Your task to perform on an android device: What is the news today? Image 0: 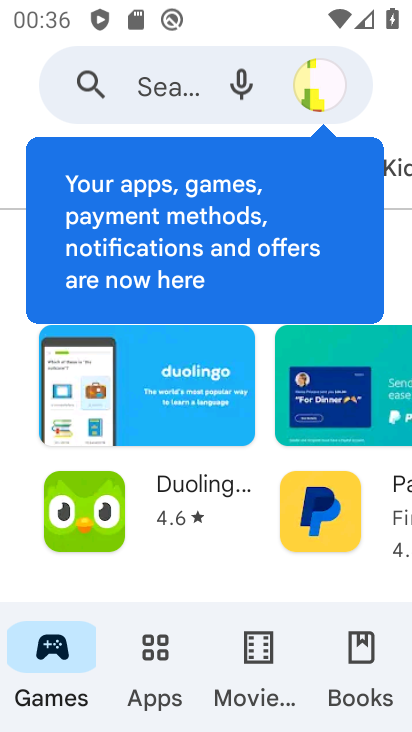
Step 0: press home button
Your task to perform on an android device: What is the news today? Image 1: 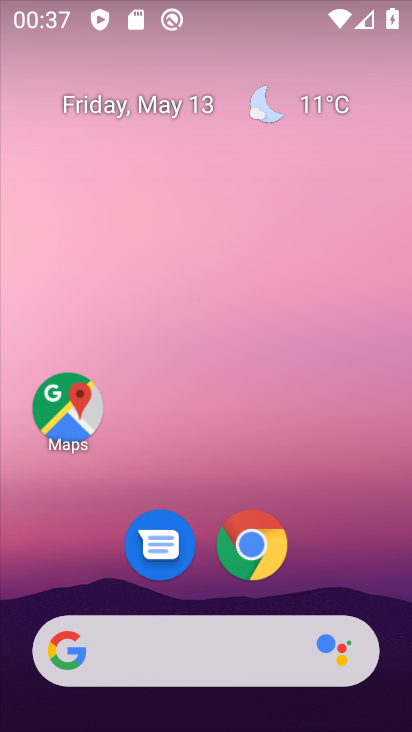
Step 1: click (263, 566)
Your task to perform on an android device: What is the news today? Image 2: 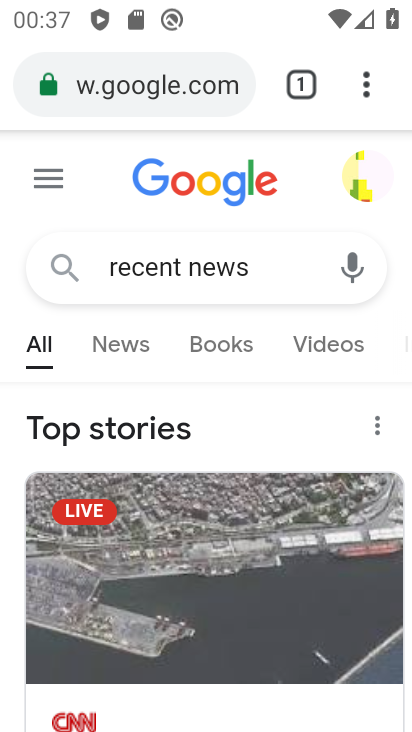
Step 2: click (140, 82)
Your task to perform on an android device: What is the news today? Image 3: 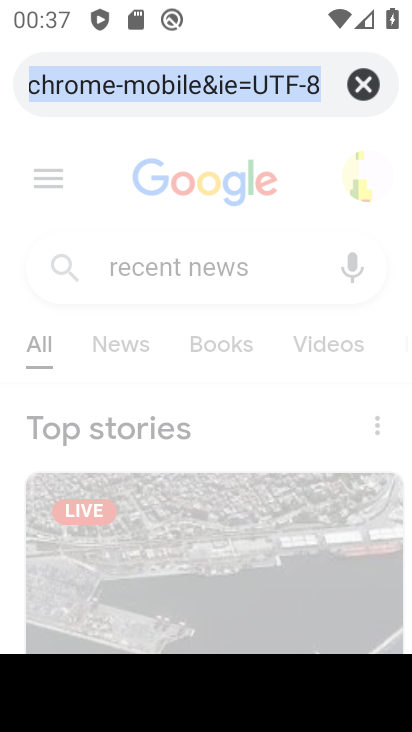
Step 3: type "what is the news today"
Your task to perform on an android device: What is the news today? Image 4: 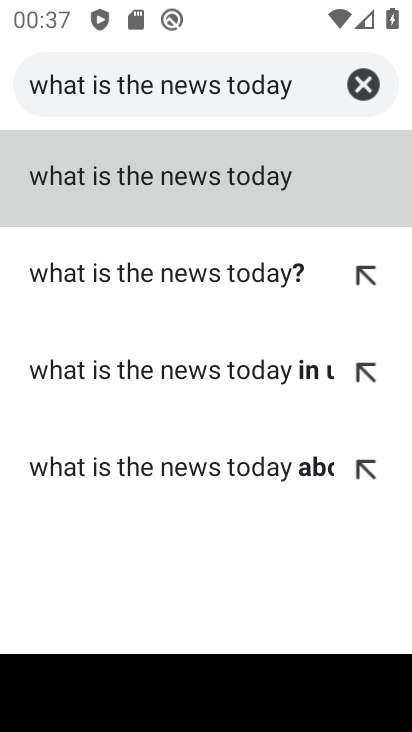
Step 4: click (203, 199)
Your task to perform on an android device: What is the news today? Image 5: 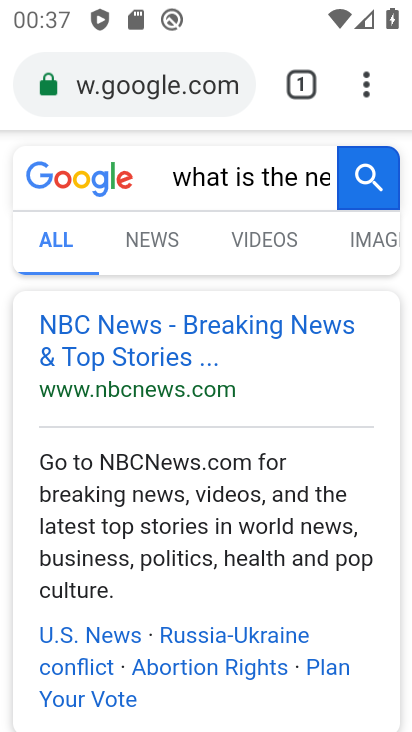
Step 5: click (163, 332)
Your task to perform on an android device: What is the news today? Image 6: 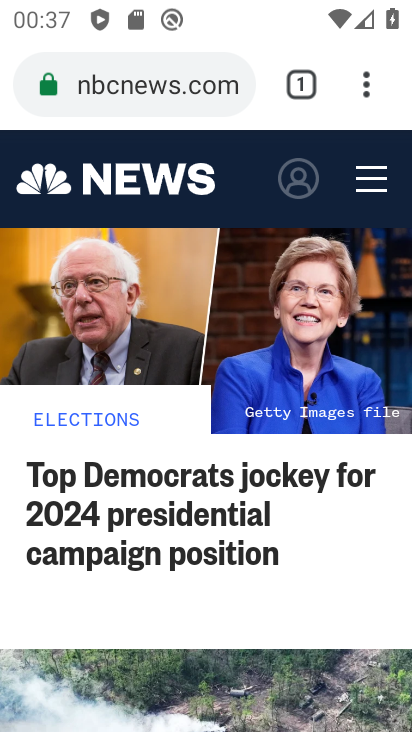
Step 6: task complete